Your task to perform on an android device: What's the weather going to be tomorrow? Image 0: 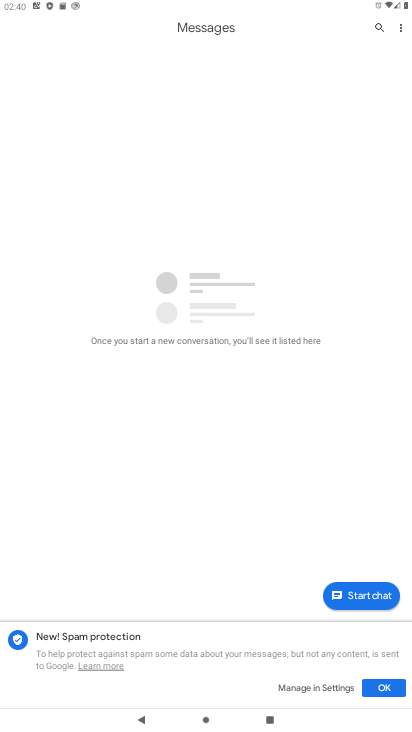
Step 0: press home button
Your task to perform on an android device: What's the weather going to be tomorrow? Image 1: 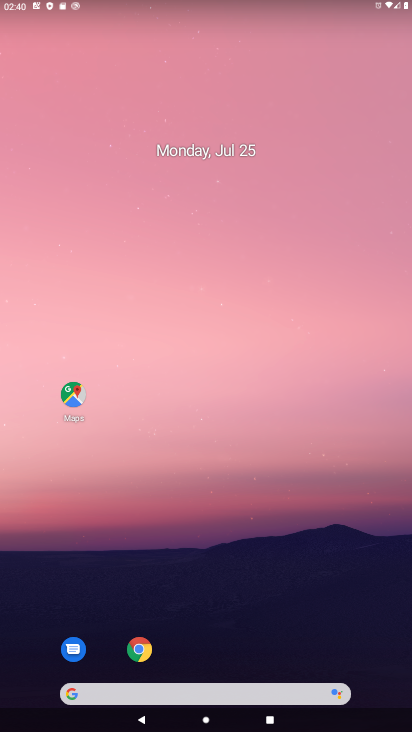
Step 1: click (154, 695)
Your task to perform on an android device: What's the weather going to be tomorrow? Image 2: 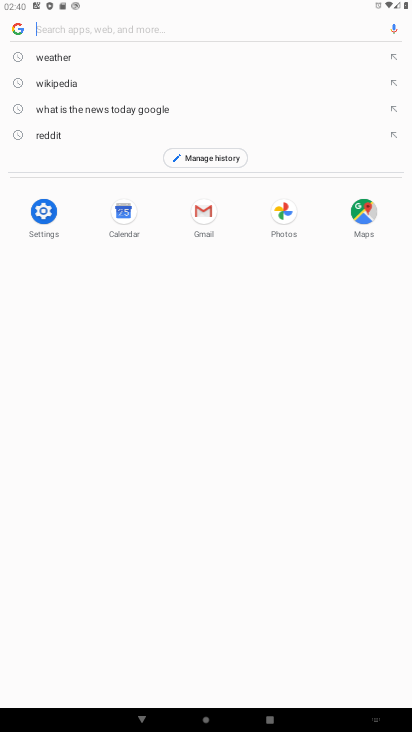
Step 2: click (53, 56)
Your task to perform on an android device: What's the weather going to be tomorrow? Image 3: 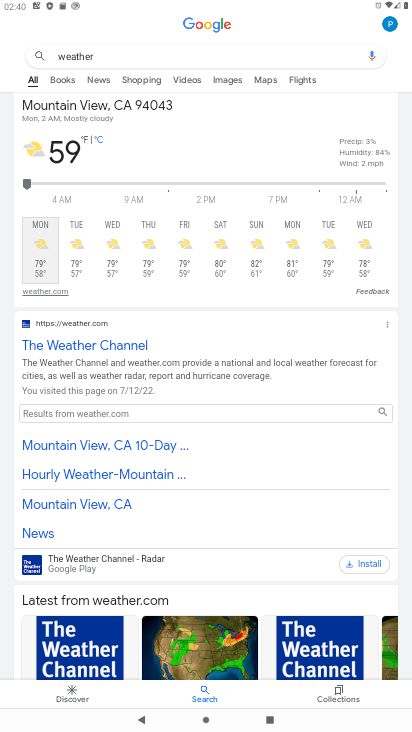
Step 3: task complete